Your task to perform on an android device: change the clock style Image 0: 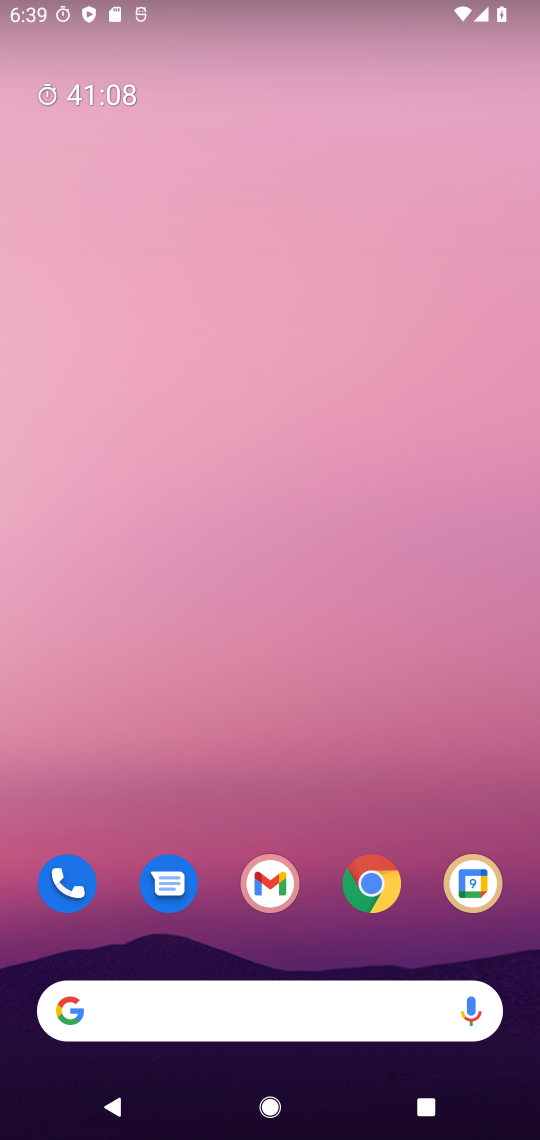
Step 0: drag from (271, 814) to (222, 263)
Your task to perform on an android device: change the clock style Image 1: 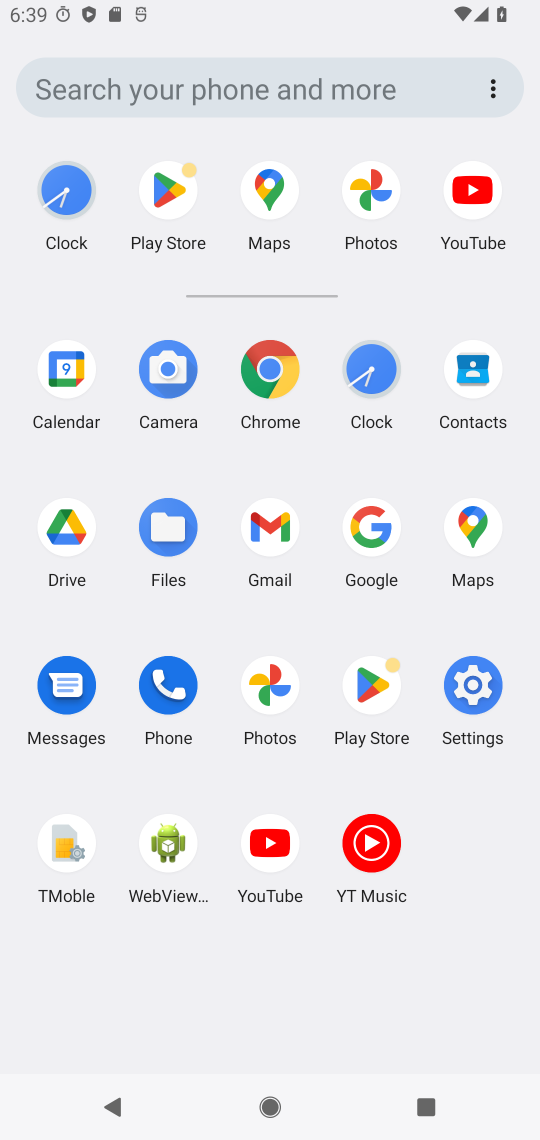
Step 1: click (366, 355)
Your task to perform on an android device: change the clock style Image 2: 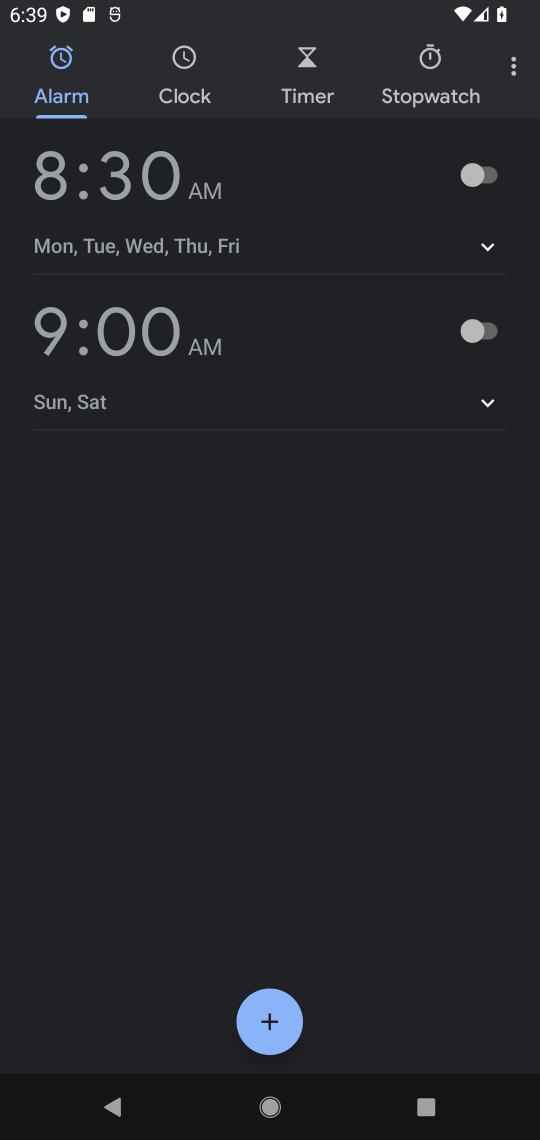
Step 2: click (514, 67)
Your task to perform on an android device: change the clock style Image 3: 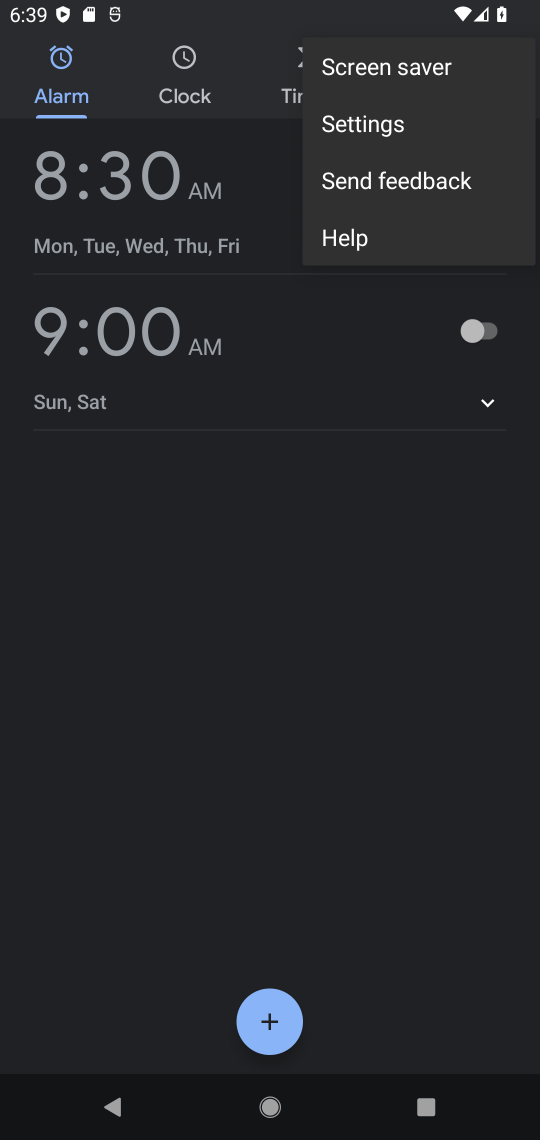
Step 3: click (397, 125)
Your task to perform on an android device: change the clock style Image 4: 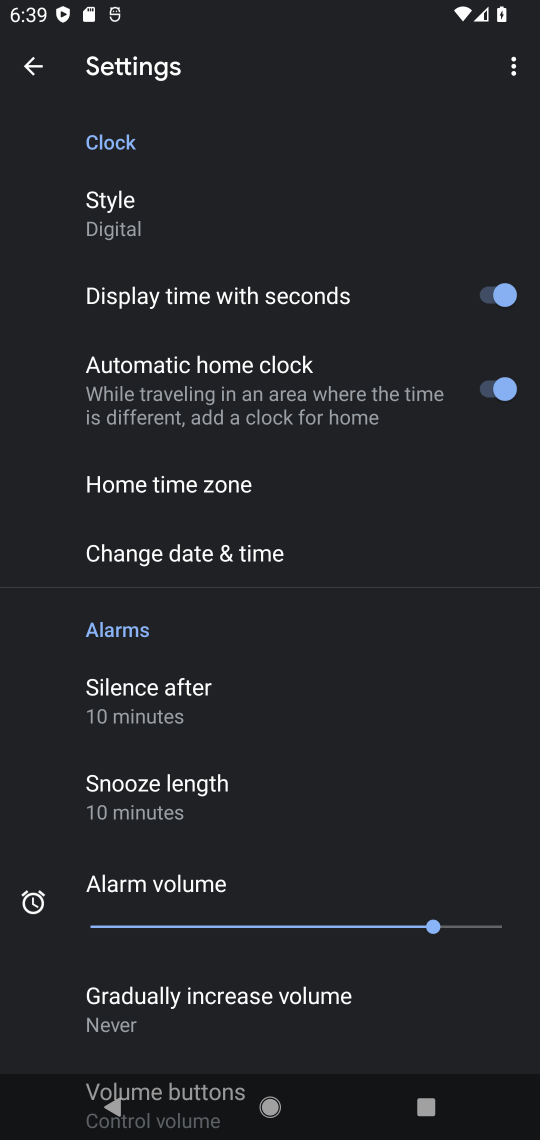
Step 4: click (166, 214)
Your task to perform on an android device: change the clock style Image 5: 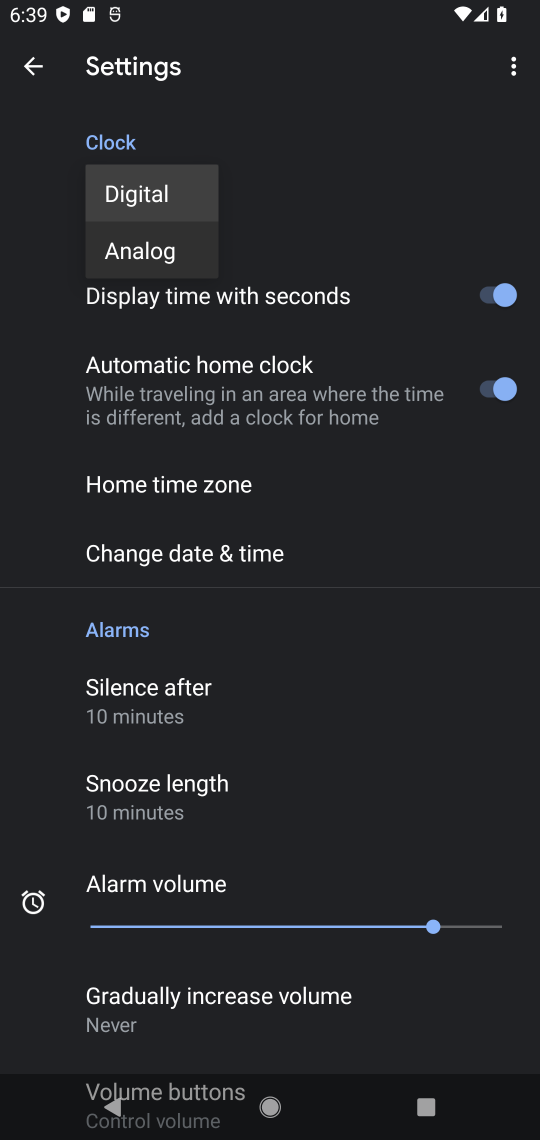
Step 5: click (163, 233)
Your task to perform on an android device: change the clock style Image 6: 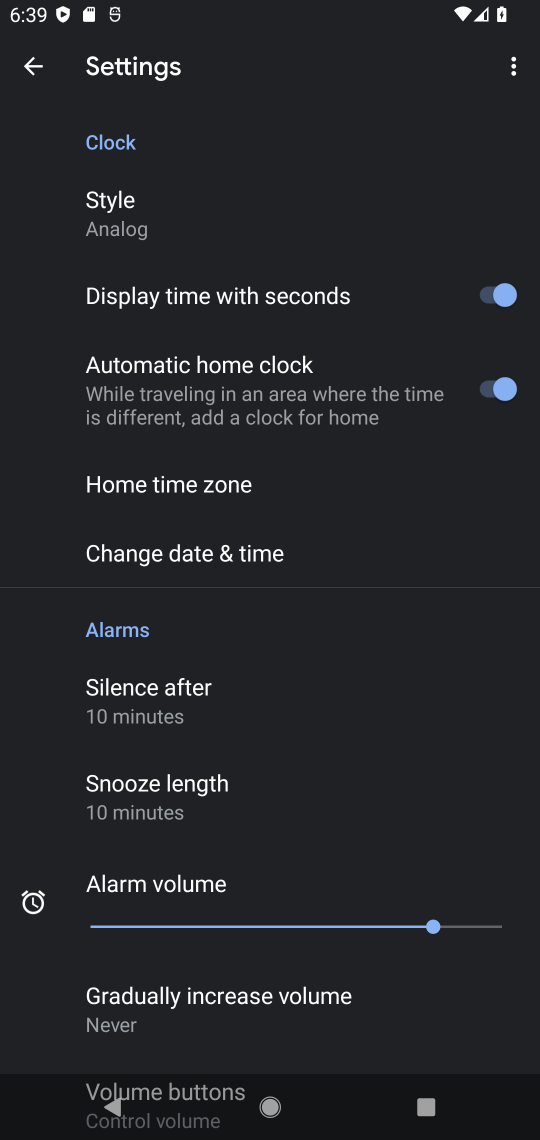
Step 6: task complete